Your task to perform on an android device: find which apps use the phone's location Image 0: 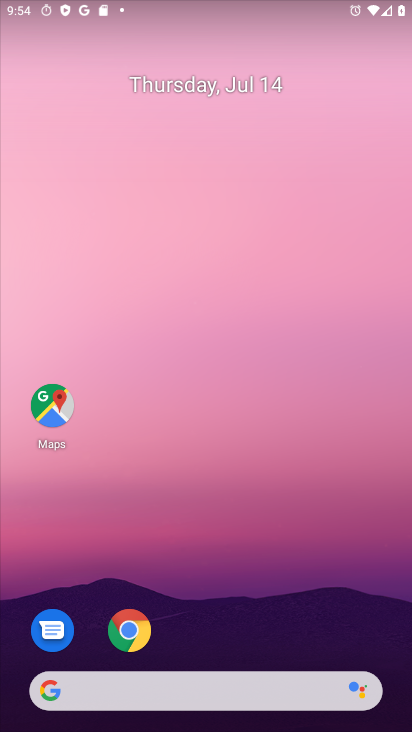
Step 0: drag from (21, 707) to (239, 93)
Your task to perform on an android device: find which apps use the phone's location Image 1: 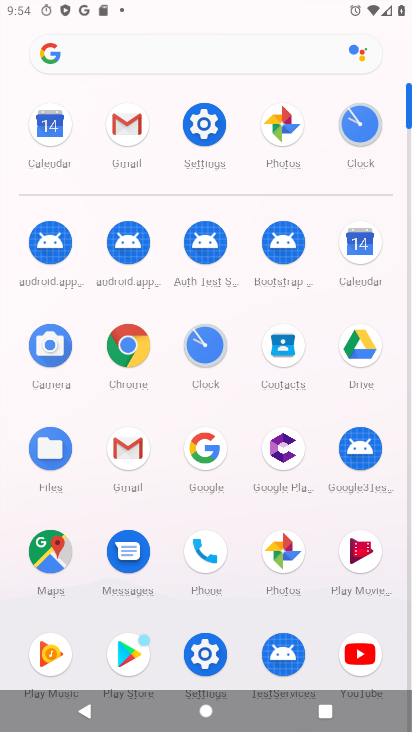
Step 1: click (205, 649)
Your task to perform on an android device: find which apps use the phone's location Image 2: 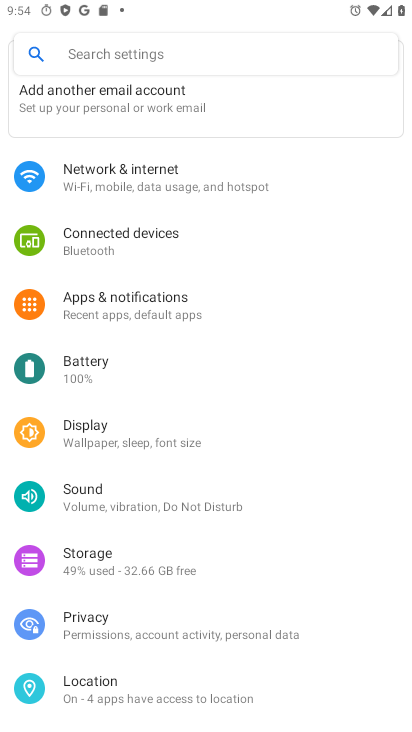
Step 2: click (100, 681)
Your task to perform on an android device: find which apps use the phone's location Image 3: 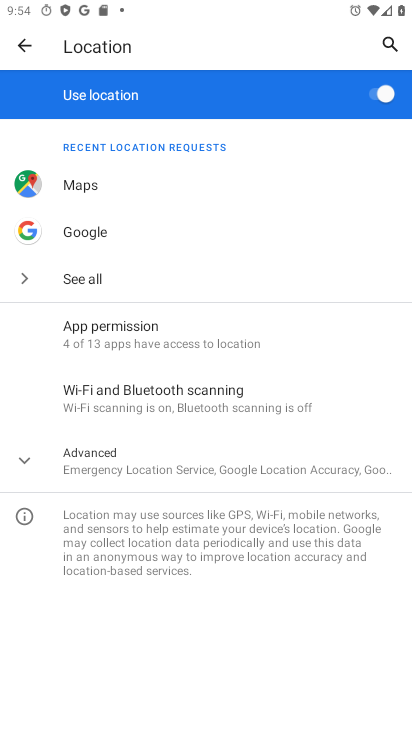
Step 3: click (120, 345)
Your task to perform on an android device: find which apps use the phone's location Image 4: 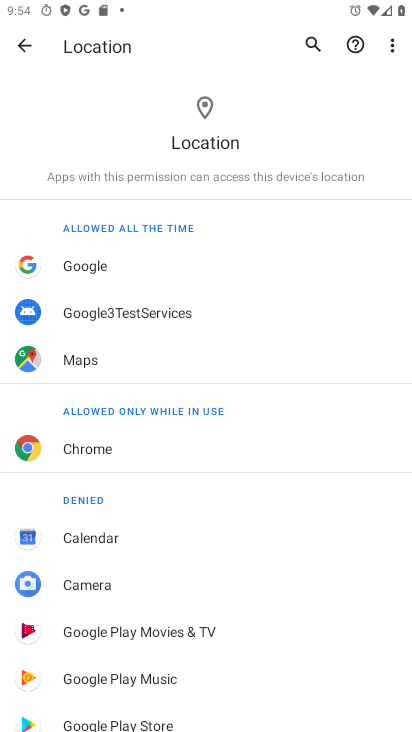
Step 4: task complete